Your task to perform on an android device: set the timer Image 0: 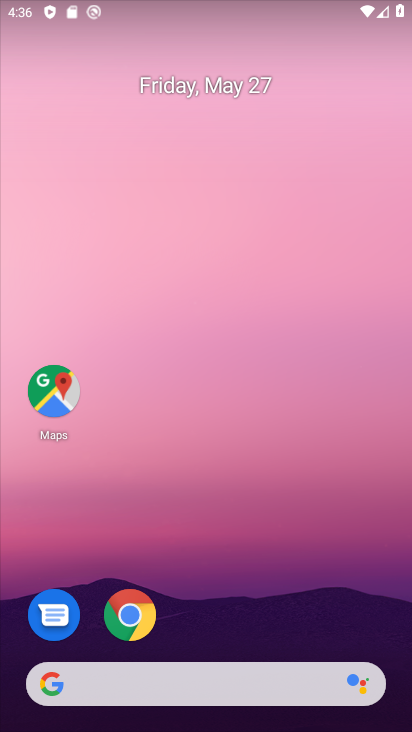
Step 0: drag from (295, 599) to (133, 0)
Your task to perform on an android device: set the timer Image 1: 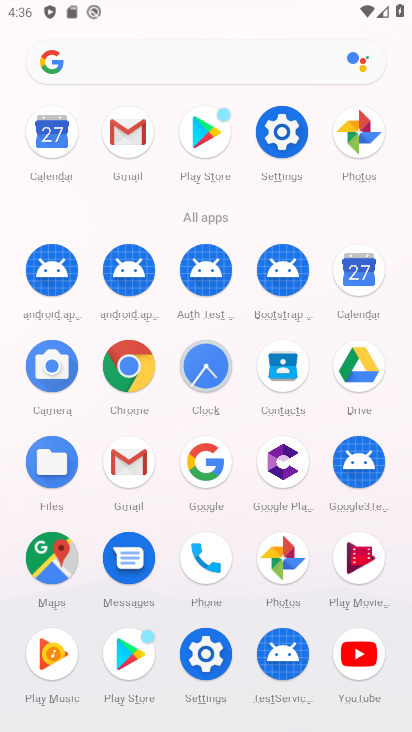
Step 1: click (208, 360)
Your task to perform on an android device: set the timer Image 2: 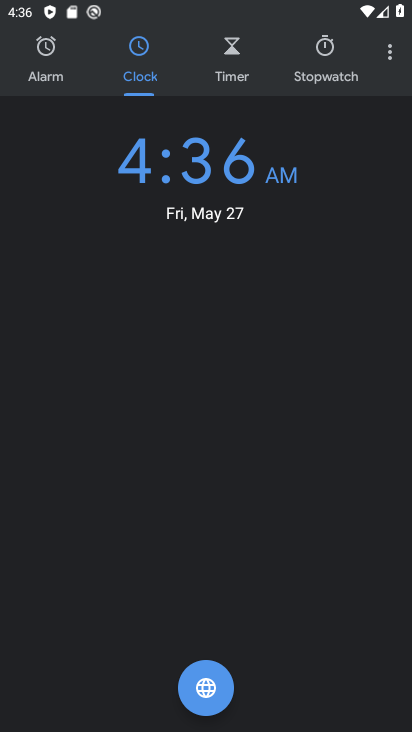
Step 2: click (237, 51)
Your task to perform on an android device: set the timer Image 3: 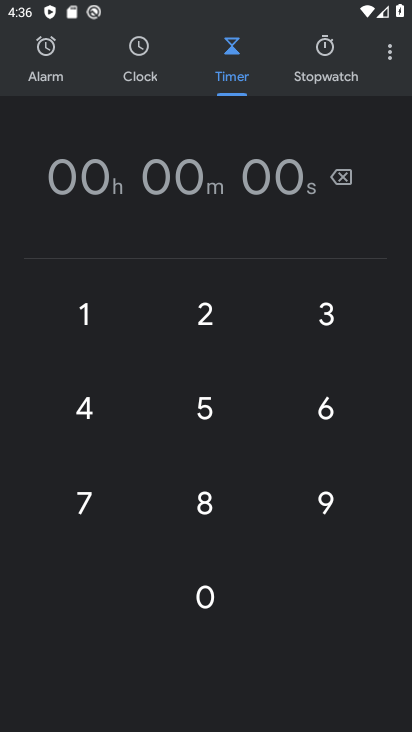
Step 3: click (104, 315)
Your task to perform on an android device: set the timer Image 4: 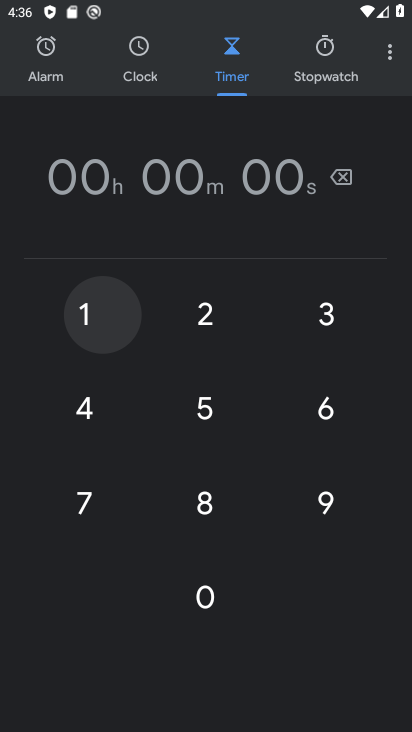
Step 4: click (104, 313)
Your task to perform on an android device: set the timer Image 5: 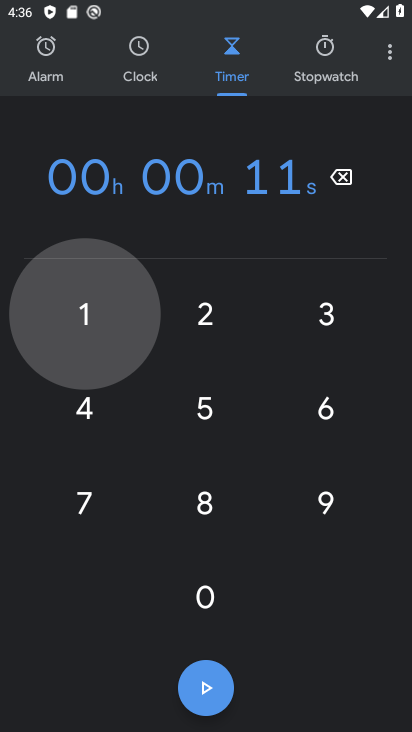
Step 5: click (104, 312)
Your task to perform on an android device: set the timer Image 6: 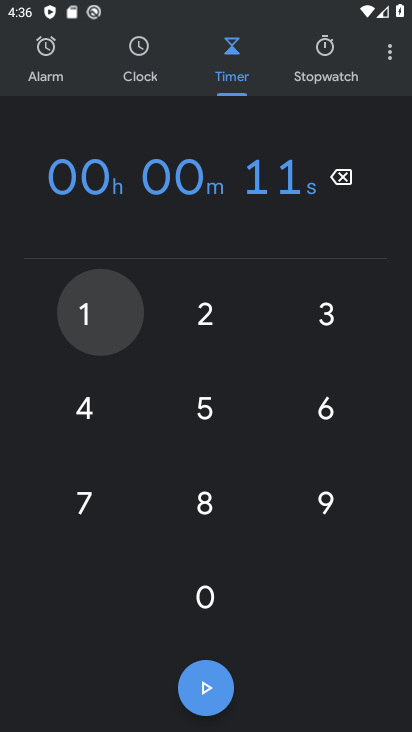
Step 6: click (104, 310)
Your task to perform on an android device: set the timer Image 7: 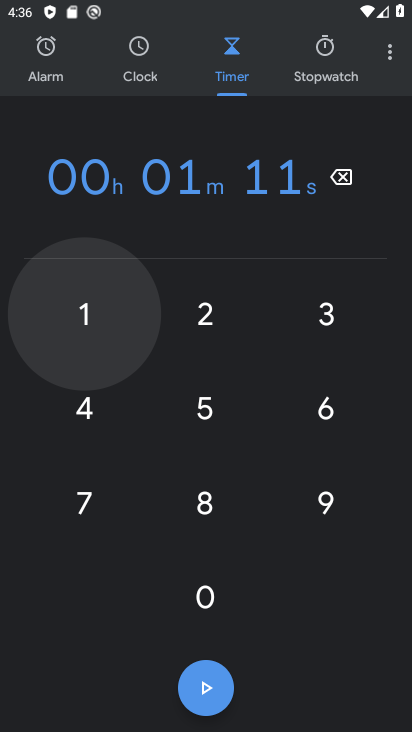
Step 7: click (104, 310)
Your task to perform on an android device: set the timer Image 8: 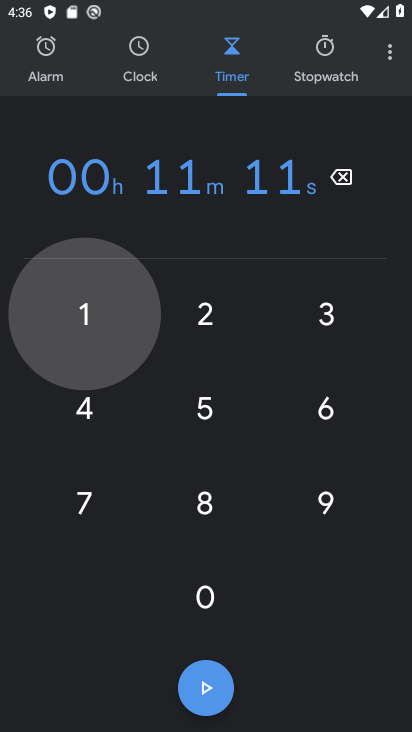
Step 8: click (104, 310)
Your task to perform on an android device: set the timer Image 9: 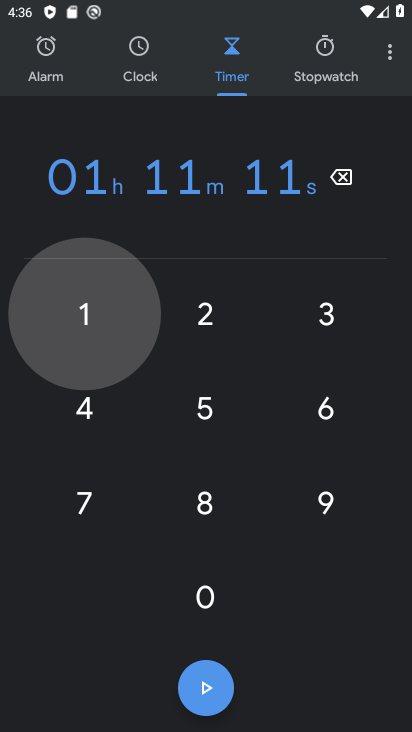
Step 9: click (103, 309)
Your task to perform on an android device: set the timer Image 10: 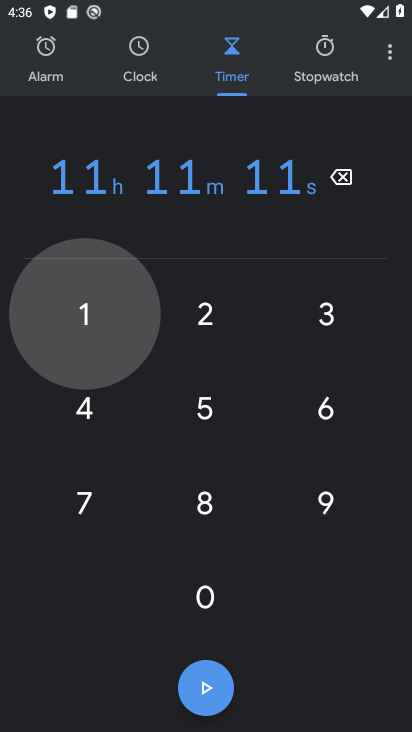
Step 10: click (103, 309)
Your task to perform on an android device: set the timer Image 11: 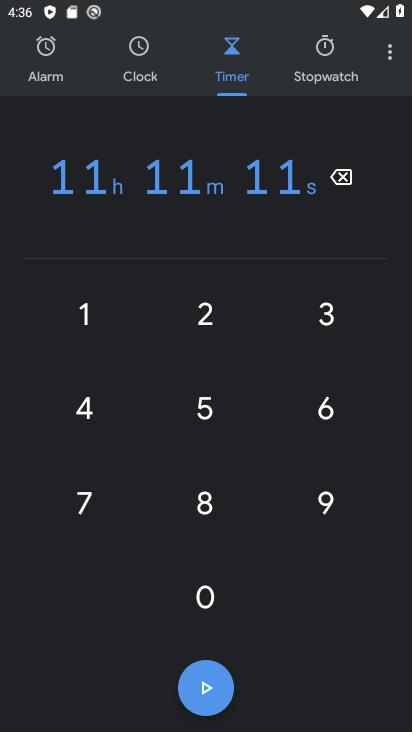
Step 11: click (223, 696)
Your task to perform on an android device: set the timer Image 12: 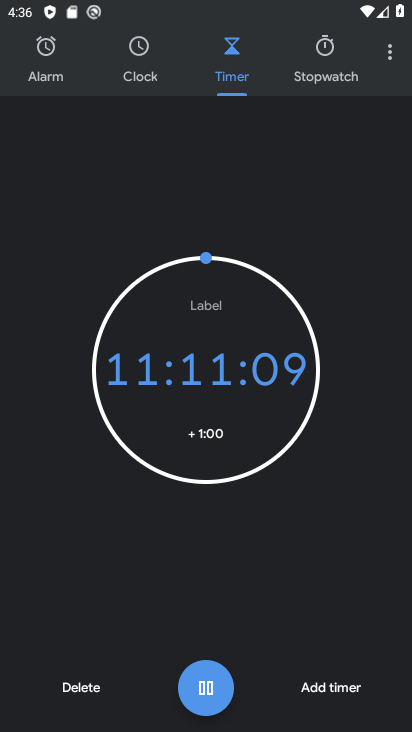
Step 12: task complete